Your task to perform on an android device: Turn on the flashlight Image 0: 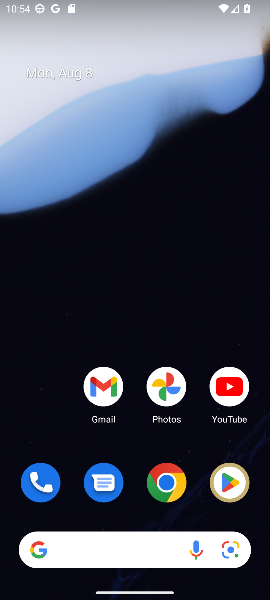
Step 0: drag from (103, 443) to (196, 41)
Your task to perform on an android device: Turn on the flashlight Image 1: 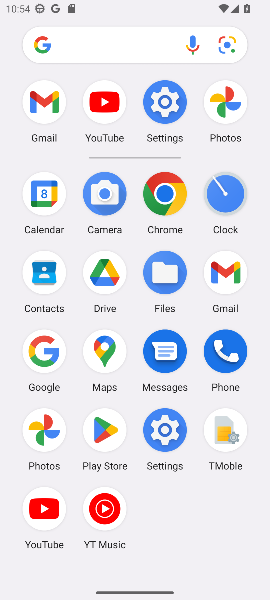
Step 1: click (151, 421)
Your task to perform on an android device: Turn on the flashlight Image 2: 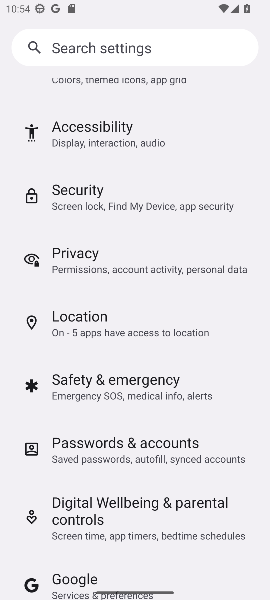
Step 2: task complete